Your task to perform on an android device: Add alienware aurora to the cart on bestbuy, then select checkout. Image 0: 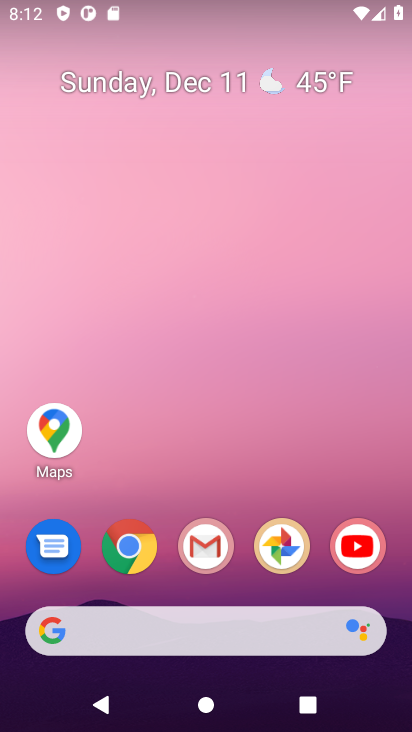
Step 0: click (127, 548)
Your task to perform on an android device: Add alienware aurora to the cart on bestbuy, then select checkout. Image 1: 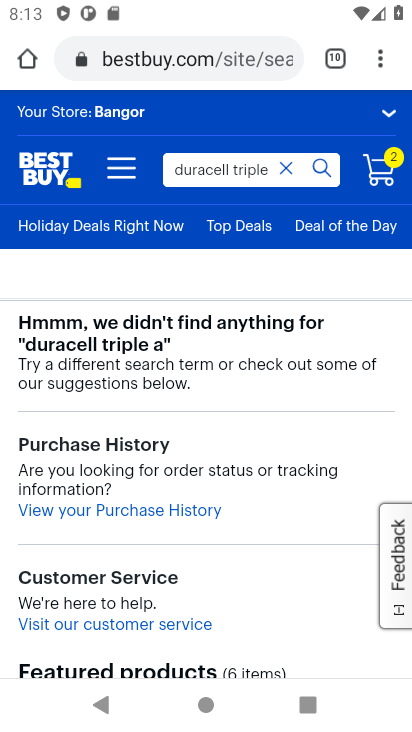
Step 1: click (288, 172)
Your task to perform on an android device: Add alienware aurora to the cart on bestbuy, then select checkout. Image 2: 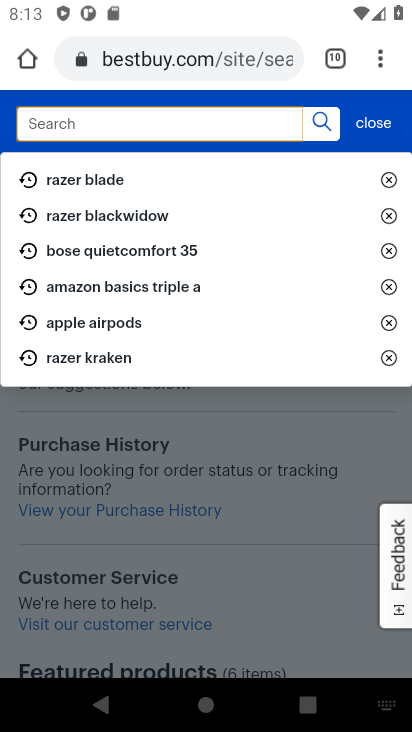
Step 2: click (94, 127)
Your task to perform on an android device: Add alienware aurora to the cart on bestbuy, then select checkout. Image 3: 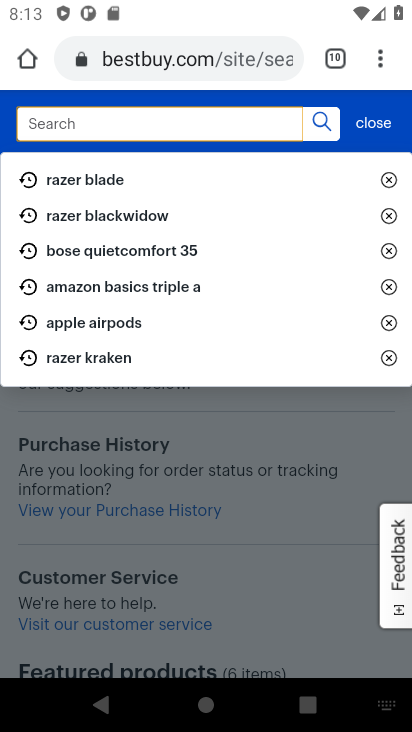
Step 3: type "alienware aurora"
Your task to perform on an android device: Add alienware aurora to the cart on bestbuy, then select checkout. Image 4: 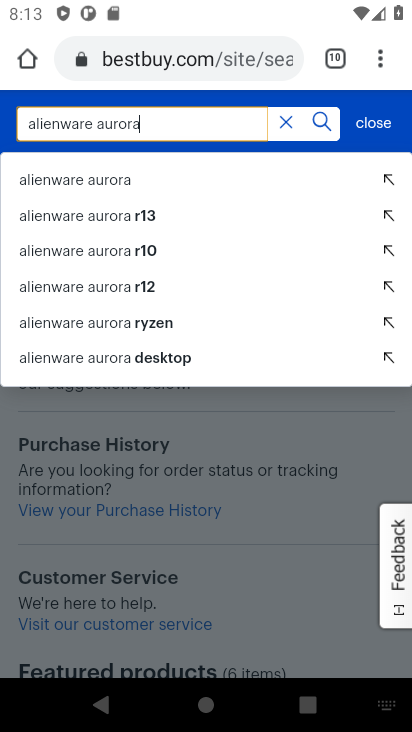
Step 4: click (91, 185)
Your task to perform on an android device: Add alienware aurora to the cart on bestbuy, then select checkout. Image 5: 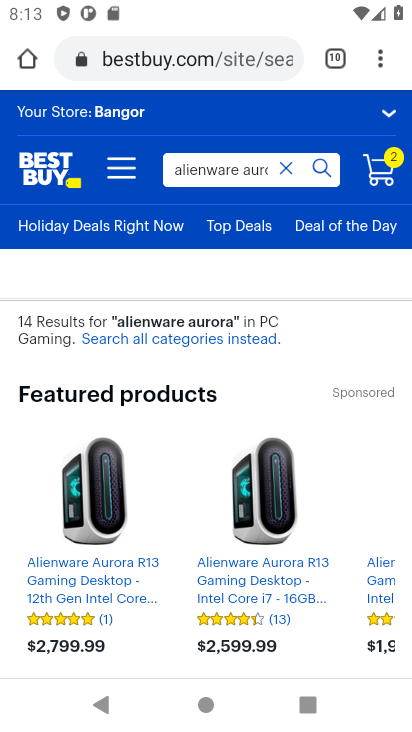
Step 5: drag from (157, 470) to (157, 218)
Your task to perform on an android device: Add alienware aurora to the cart on bestbuy, then select checkout. Image 6: 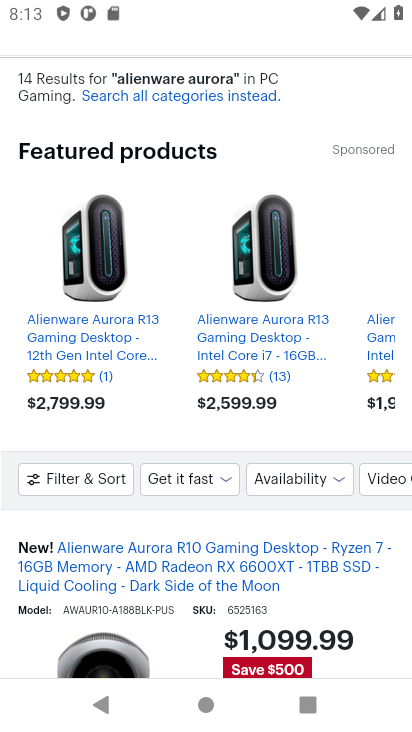
Step 6: drag from (163, 494) to (140, 254)
Your task to perform on an android device: Add alienware aurora to the cart on bestbuy, then select checkout. Image 7: 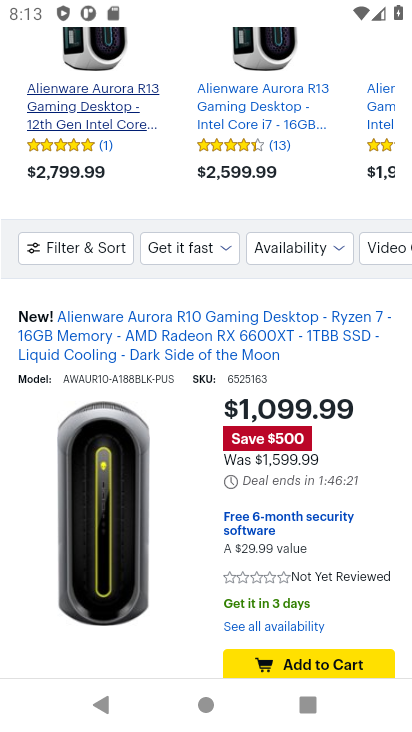
Step 7: drag from (166, 501) to (167, 330)
Your task to perform on an android device: Add alienware aurora to the cart on bestbuy, then select checkout. Image 8: 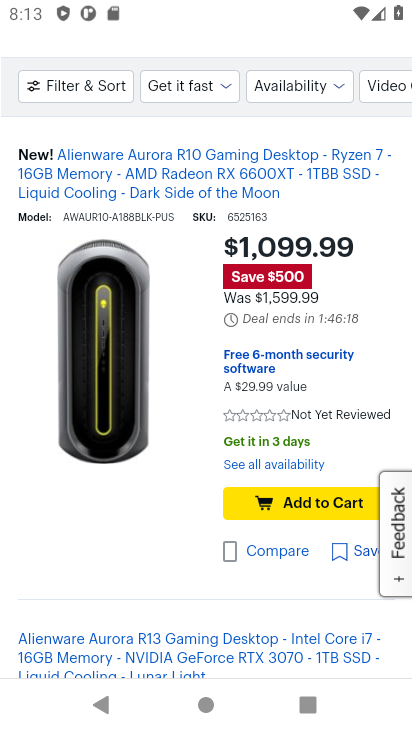
Step 8: click (264, 509)
Your task to perform on an android device: Add alienware aurora to the cart on bestbuy, then select checkout. Image 9: 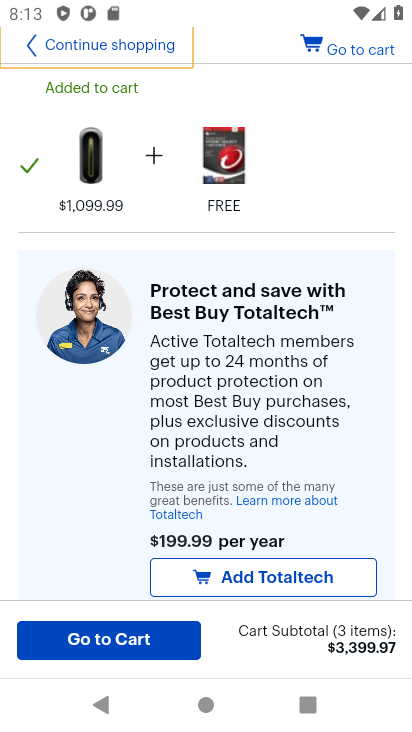
Step 9: click (371, 53)
Your task to perform on an android device: Add alienware aurora to the cart on bestbuy, then select checkout. Image 10: 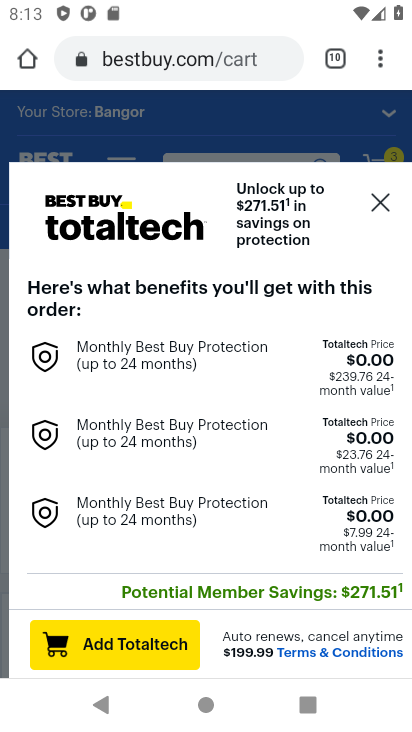
Step 10: click (380, 207)
Your task to perform on an android device: Add alienware aurora to the cart on bestbuy, then select checkout. Image 11: 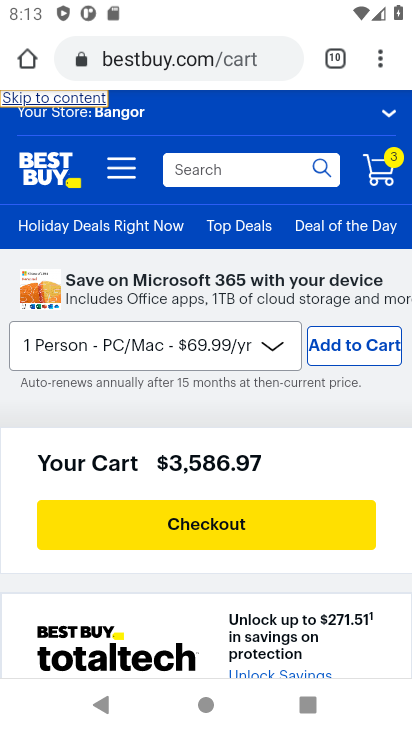
Step 11: click (192, 534)
Your task to perform on an android device: Add alienware aurora to the cart on bestbuy, then select checkout. Image 12: 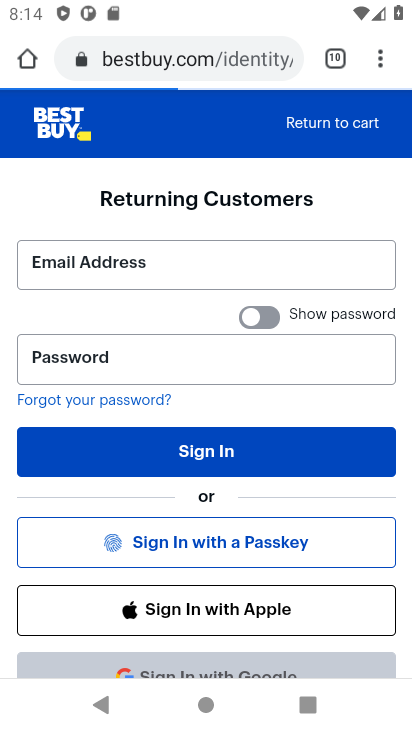
Step 12: task complete